Your task to perform on an android device: Go to battery settings Image 0: 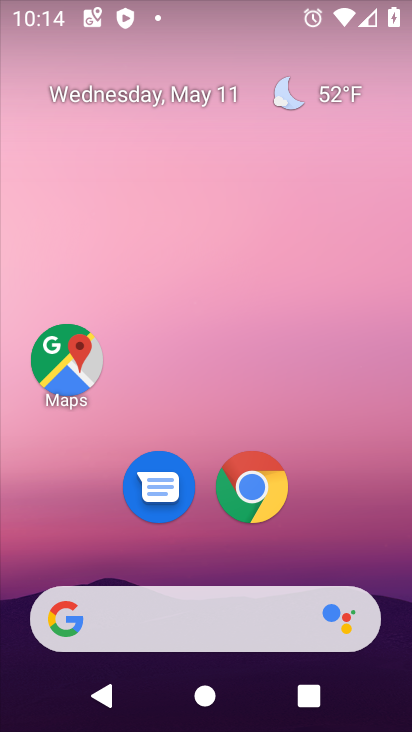
Step 0: drag from (208, 564) to (201, 44)
Your task to perform on an android device: Go to battery settings Image 1: 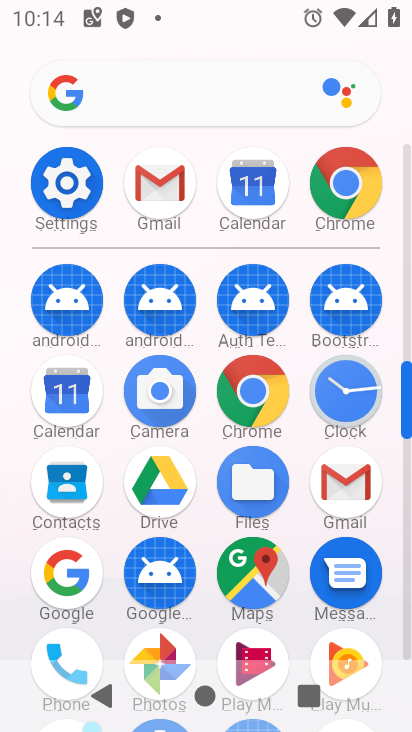
Step 1: click (84, 191)
Your task to perform on an android device: Go to battery settings Image 2: 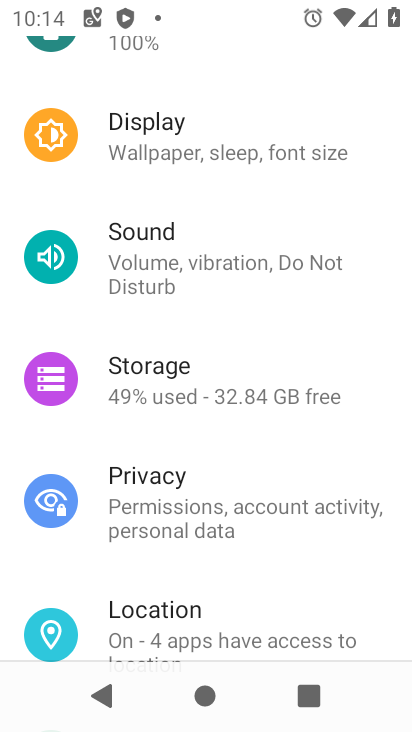
Step 2: drag from (208, 238) to (218, 572)
Your task to perform on an android device: Go to battery settings Image 3: 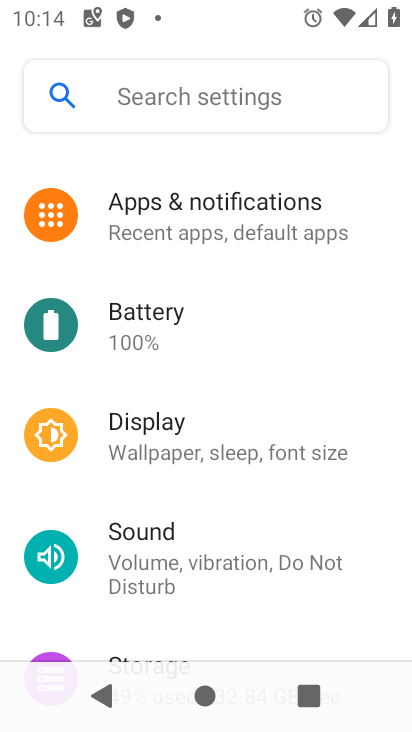
Step 3: click (178, 316)
Your task to perform on an android device: Go to battery settings Image 4: 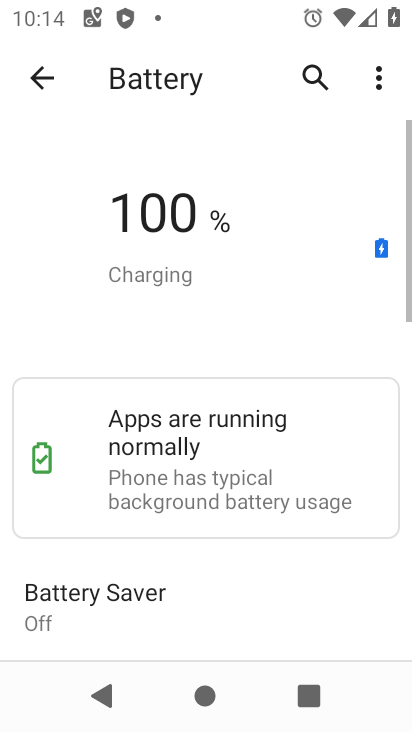
Step 4: task complete